Your task to perform on an android device: Search for Mexican restaurants on Maps Image 0: 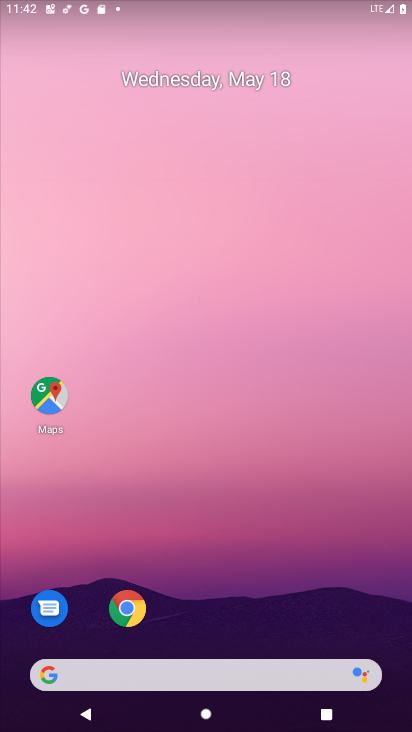
Step 0: click (45, 387)
Your task to perform on an android device: Search for Mexican restaurants on Maps Image 1: 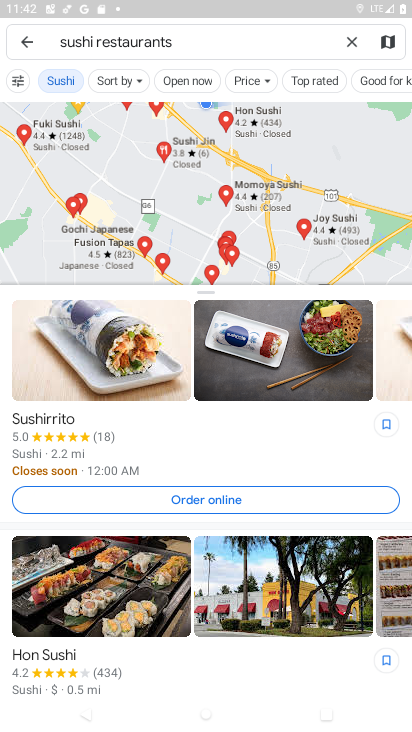
Step 1: click (354, 38)
Your task to perform on an android device: Search for Mexican restaurants on Maps Image 2: 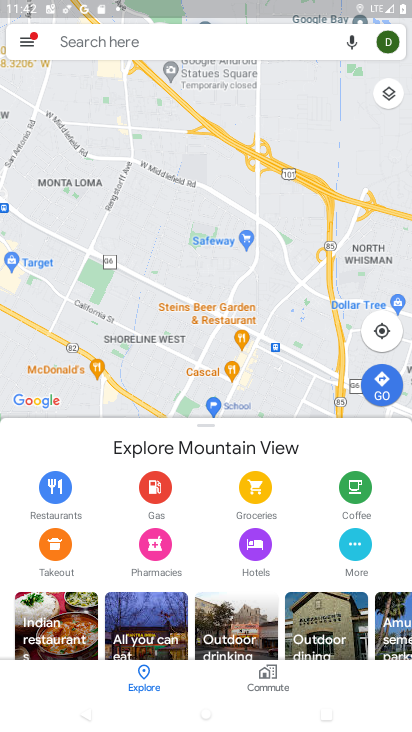
Step 2: click (172, 38)
Your task to perform on an android device: Search for Mexican restaurants on Maps Image 3: 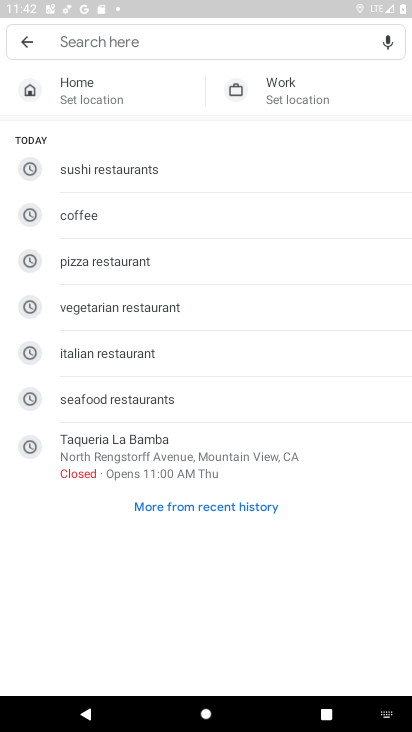
Step 3: click (140, 36)
Your task to perform on an android device: Search for Mexican restaurants on Maps Image 4: 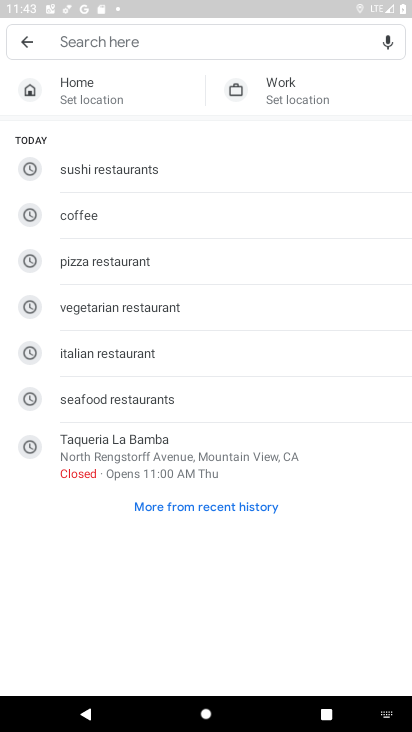
Step 4: type "mexican restaurants"
Your task to perform on an android device: Search for Mexican restaurants on Maps Image 5: 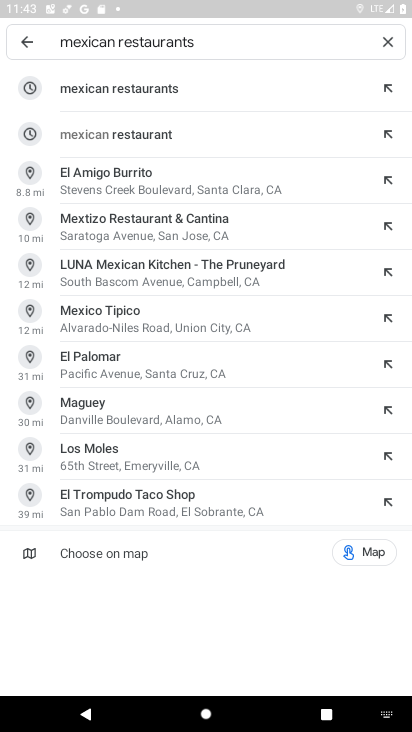
Step 5: click (143, 85)
Your task to perform on an android device: Search for Mexican restaurants on Maps Image 6: 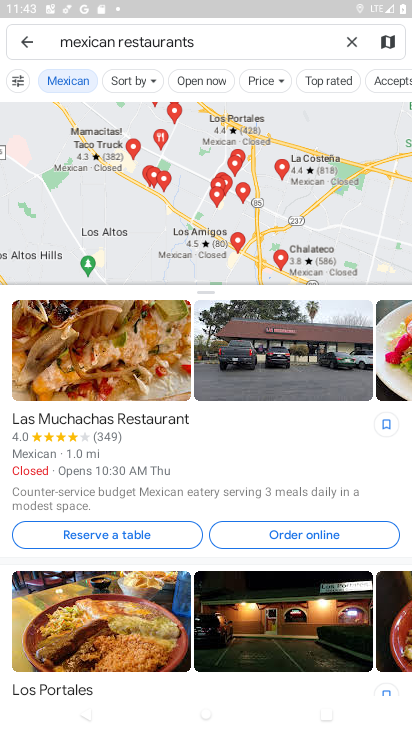
Step 6: task complete